Your task to perform on an android device: uninstall "PlayWell" Image 0: 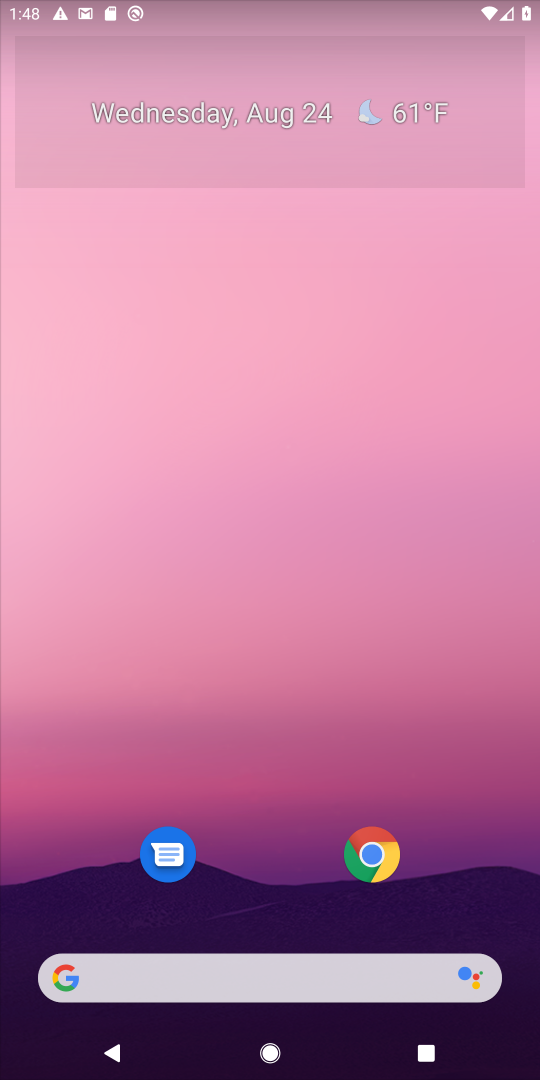
Step 0: press home button
Your task to perform on an android device: uninstall "PlayWell" Image 1: 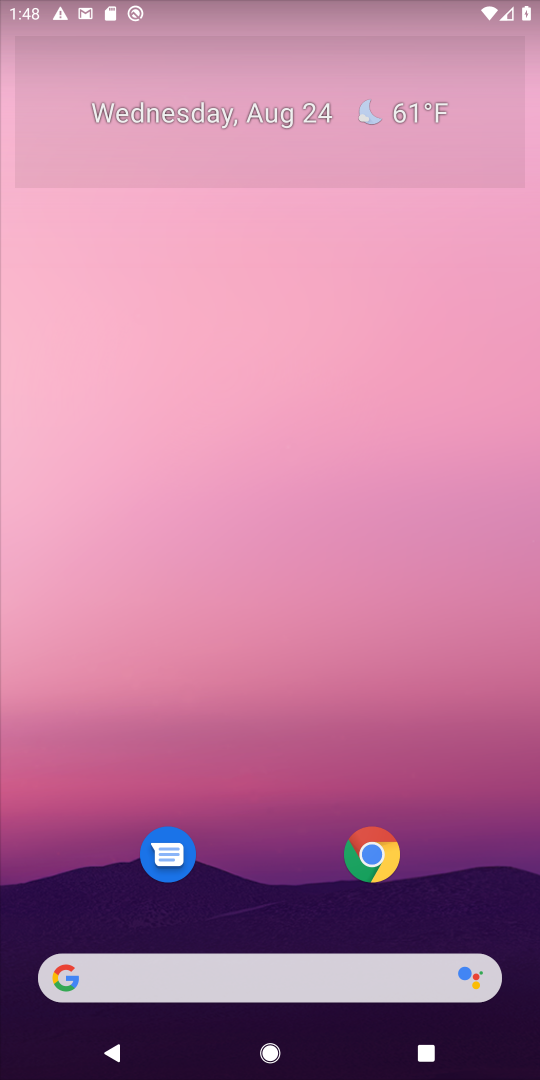
Step 1: drag from (453, 734) to (505, 104)
Your task to perform on an android device: uninstall "PlayWell" Image 2: 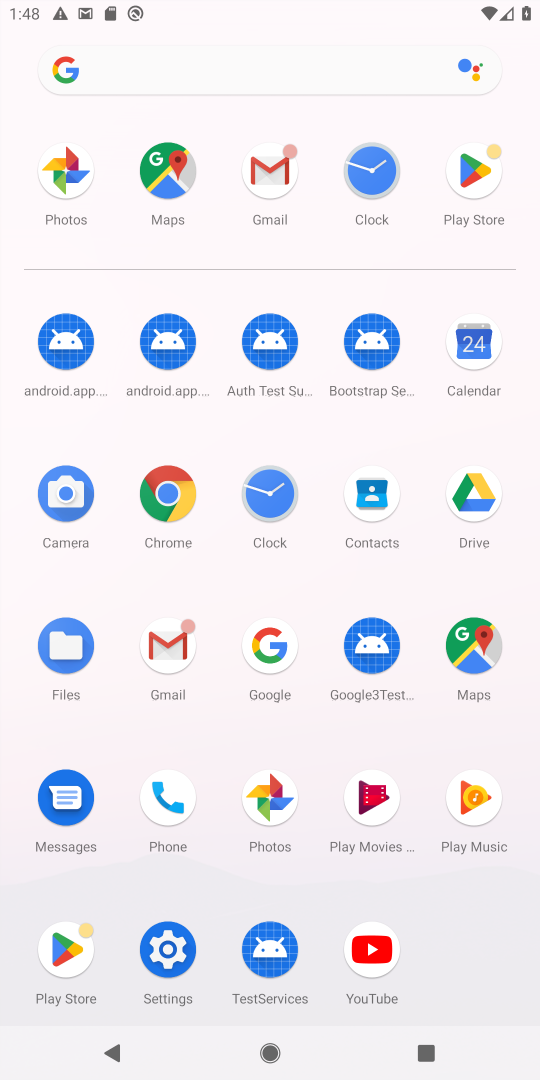
Step 2: click (472, 169)
Your task to perform on an android device: uninstall "PlayWell" Image 3: 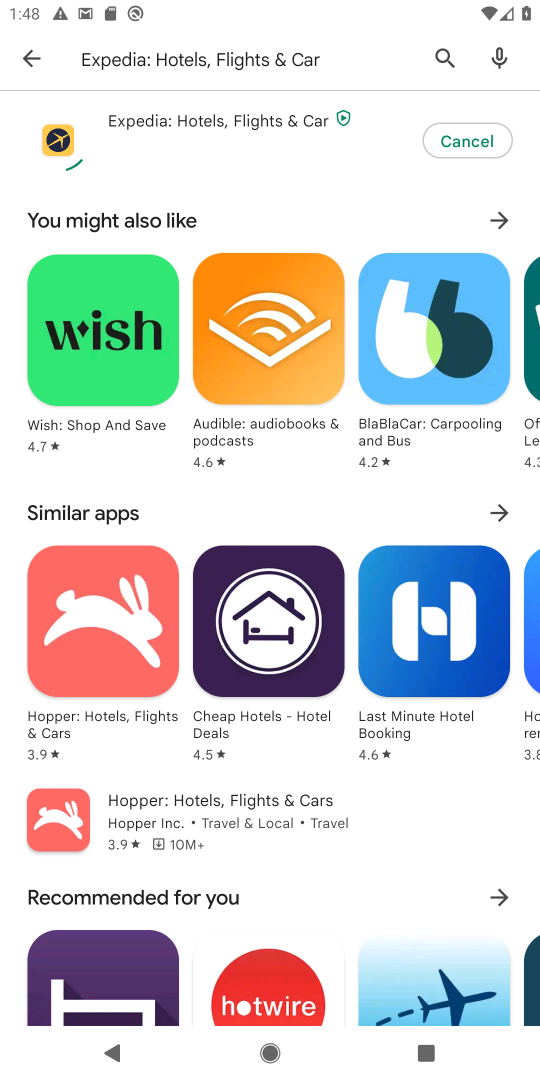
Step 3: press back button
Your task to perform on an android device: uninstall "PlayWell" Image 4: 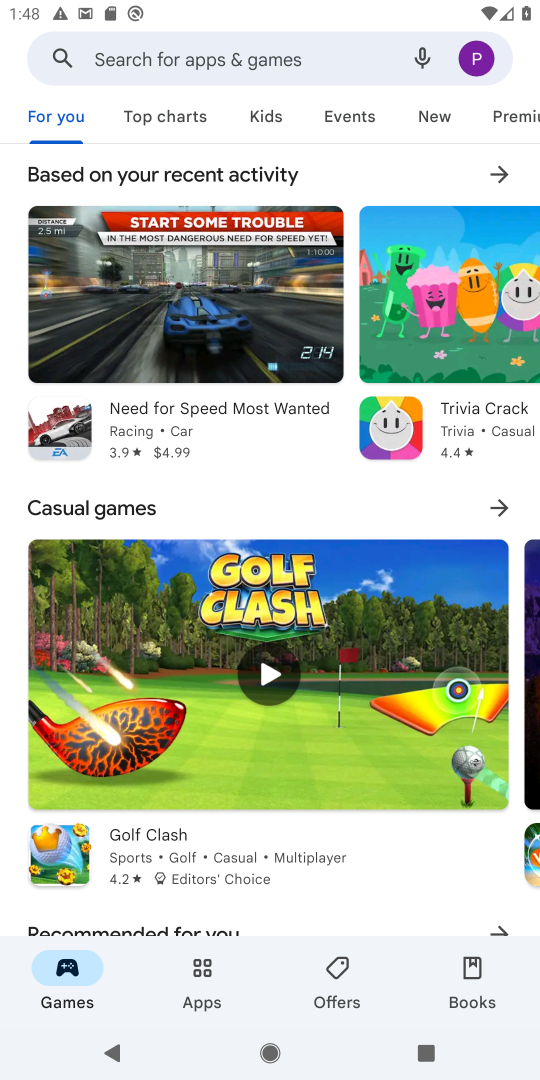
Step 4: click (325, 58)
Your task to perform on an android device: uninstall "PlayWell" Image 5: 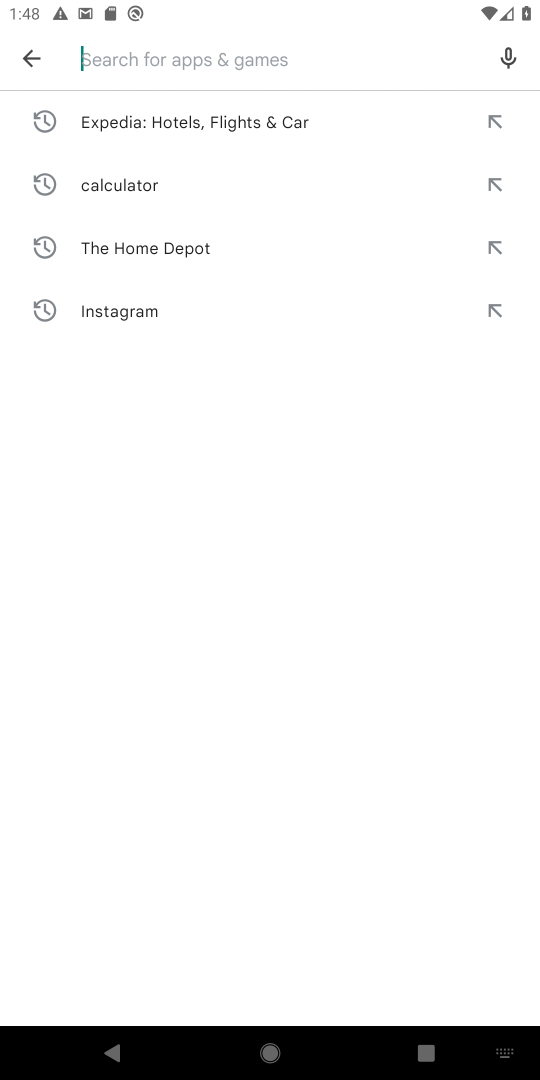
Step 5: type "play well"
Your task to perform on an android device: uninstall "PlayWell" Image 6: 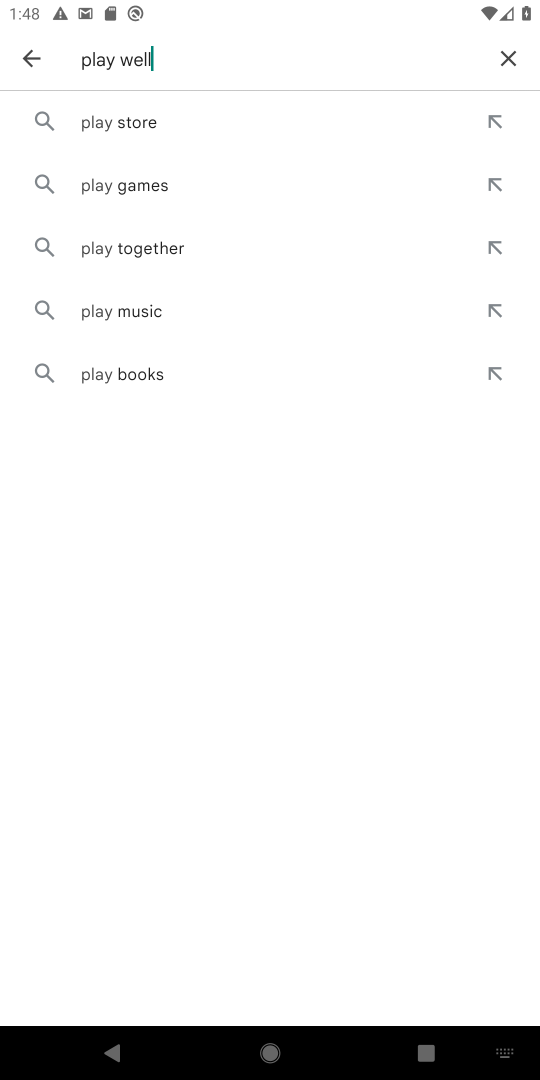
Step 6: press enter
Your task to perform on an android device: uninstall "PlayWell" Image 7: 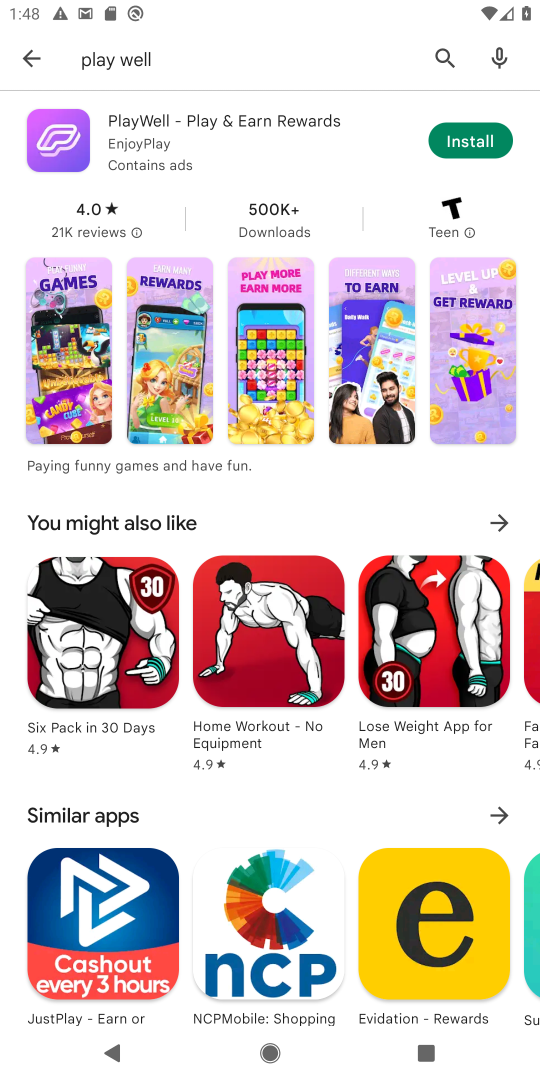
Step 7: task complete